Your task to perform on an android device: turn vacation reply on in the gmail app Image 0: 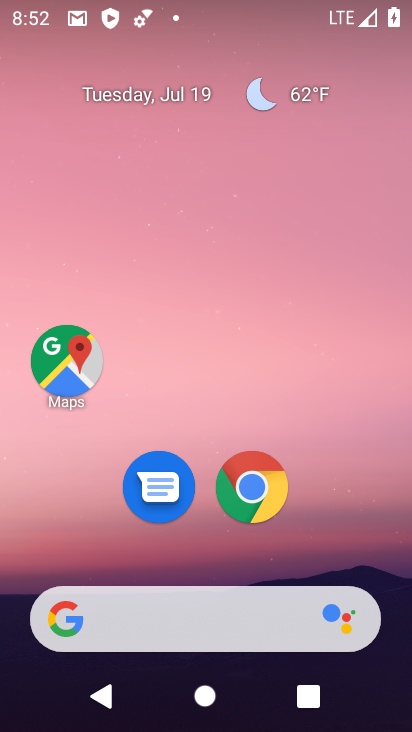
Step 0: drag from (81, 529) to (220, 3)
Your task to perform on an android device: turn vacation reply on in the gmail app Image 1: 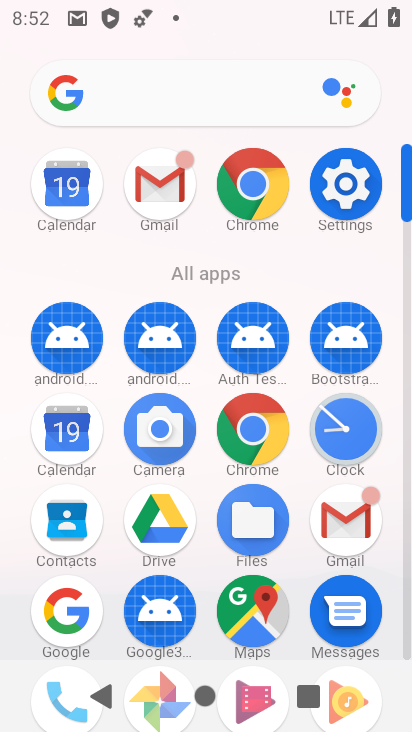
Step 1: click (164, 176)
Your task to perform on an android device: turn vacation reply on in the gmail app Image 2: 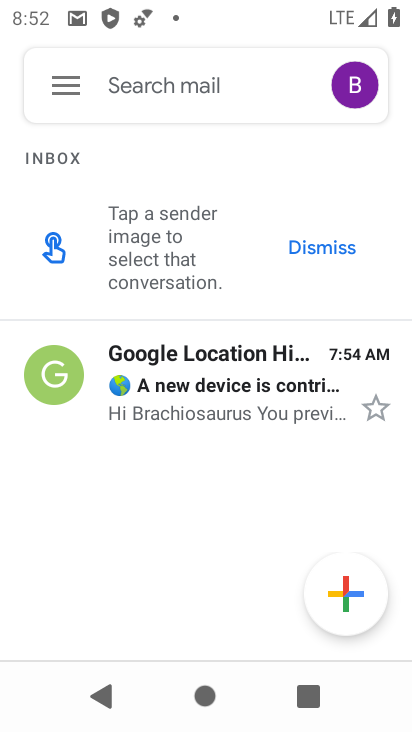
Step 2: click (65, 86)
Your task to perform on an android device: turn vacation reply on in the gmail app Image 3: 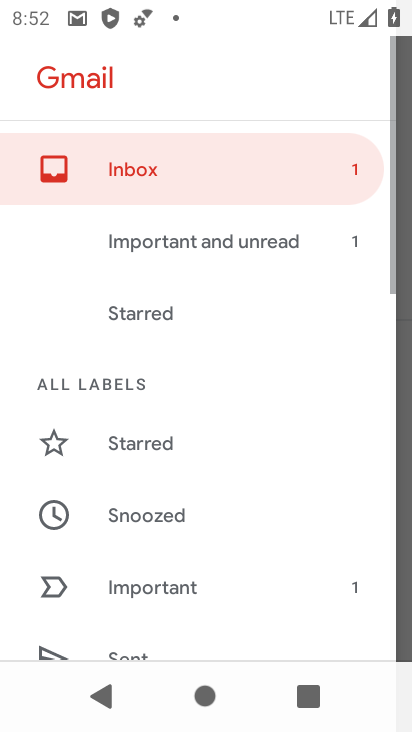
Step 3: drag from (170, 597) to (258, 70)
Your task to perform on an android device: turn vacation reply on in the gmail app Image 4: 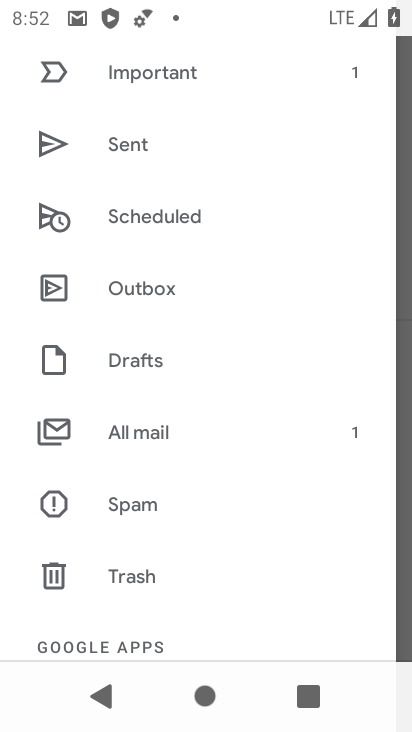
Step 4: drag from (183, 581) to (255, 84)
Your task to perform on an android device: turn vacation reply on in the gmail app Image 5: 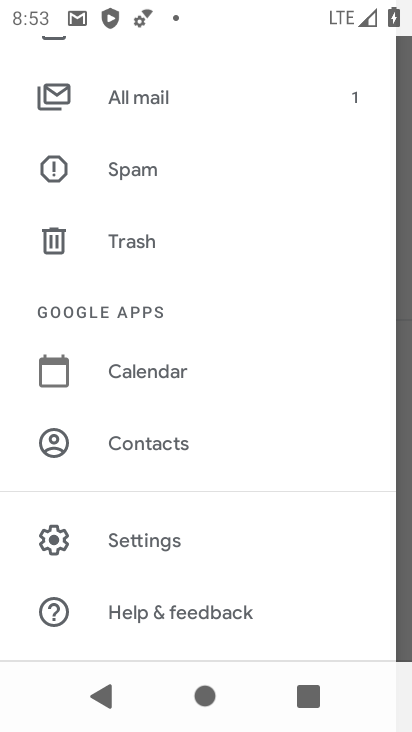
Step 5: click (150, 539)
Your task to perform on an android device: turn vacation reply on in the gmail app Image 6: 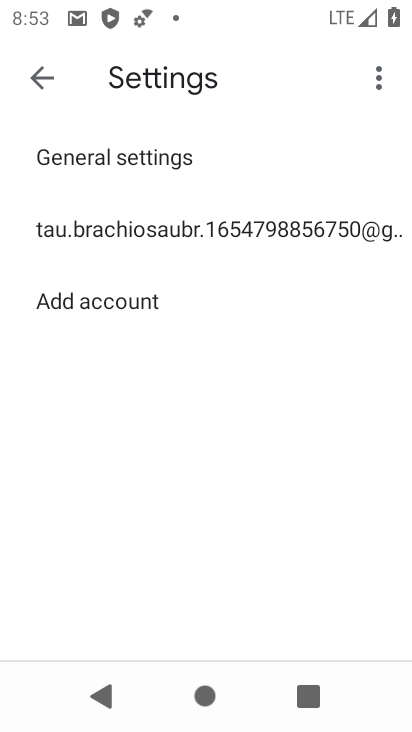
Step 6: click (142, 230)
Your task to perform on an android device: turn vacation reply on in the gmail app Image 7: 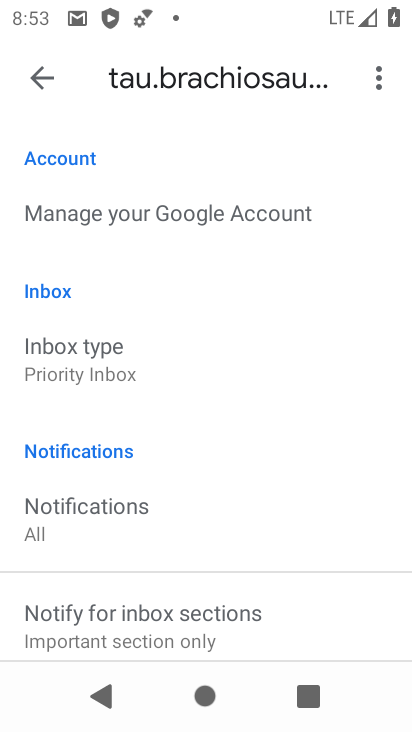
Step 7: drag from (125, 627) to (225, 56)
Your task to perform on an android device: turn vacation reply on in the gmail app Image 8: 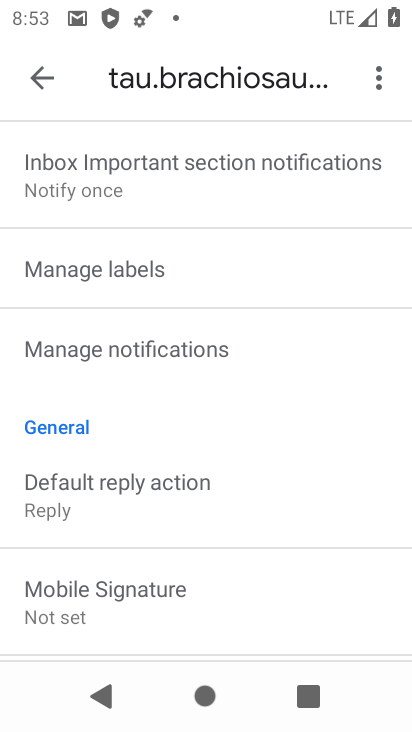
Step 8: drag from (115, 589) to (223, 94)
Your task to perform on an android device: turn vacation reply on in the gmail app Image 9: 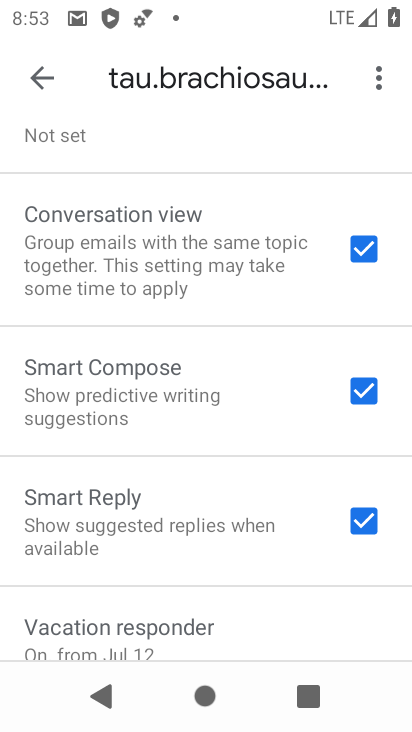
Step 9: click (140, 620)
Your task to perform on an android device: turn vacation reply on in the gmail app Image 10: 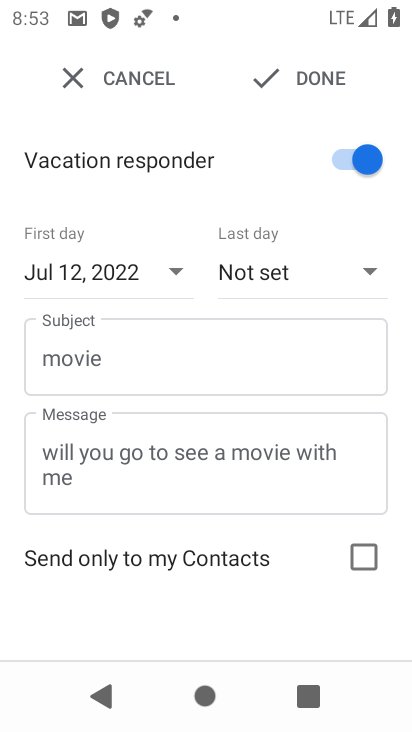
Step 10: task complete